Your task to perform on an android device: Go to wifi settings Image 0: 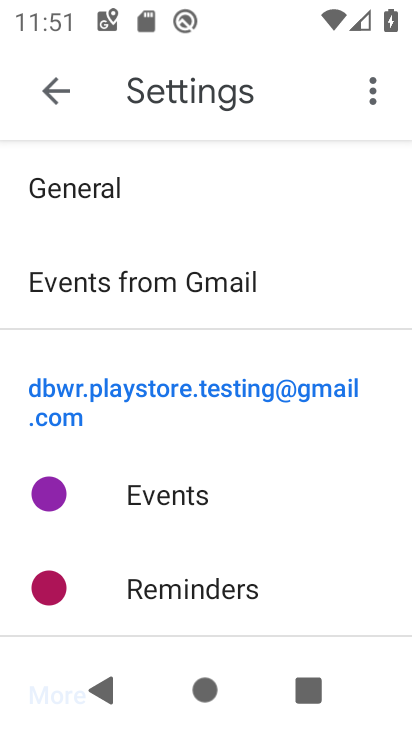
Step 0: press home button
Your task to perform on an android device: Go to wifi settings Image 1: 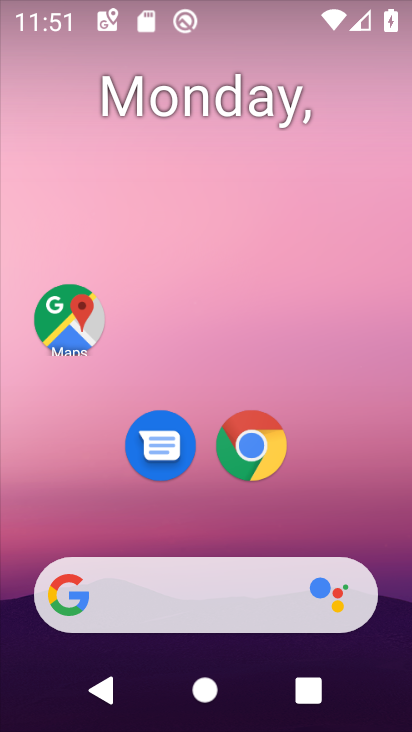
Step 1: drag from (314, 489) to (208, 79)
Your task to perform on an android device: Go to wifi settings Image 2: 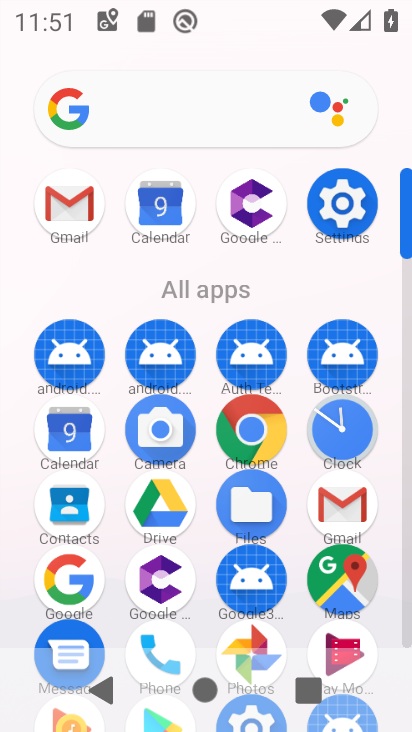
Step 2: click (339, 205)
Your task to perform on an android device: Go to wifi settings Image 3: 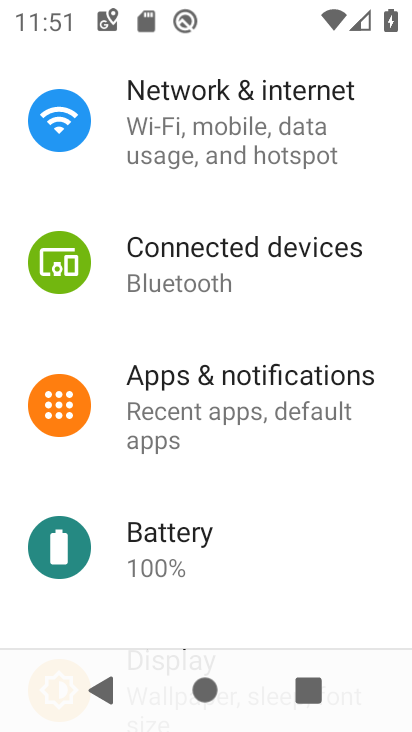
Step 3: drag from (216, 184) to (244, 634)
Your task to perform on an android device: Go to wifi settings Image 4: 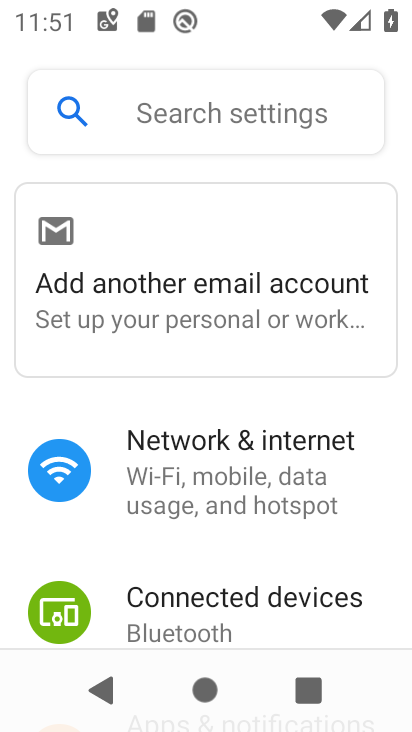
Step 4: click (218, 450)
Your task to perform on an android device: Go to wifi settings Image 5: 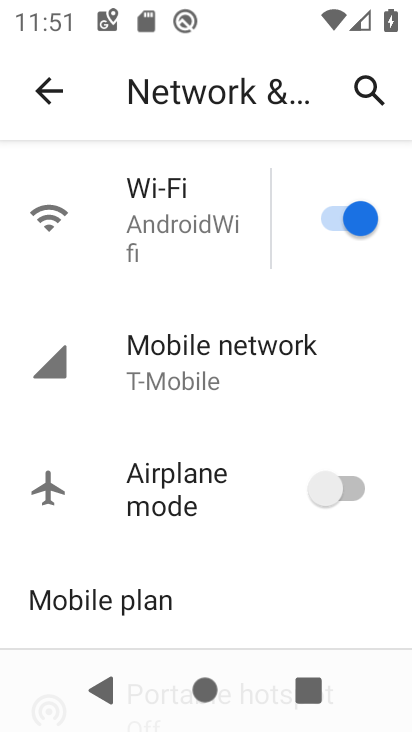
Step 5: click (165, 212)
Your task to perform on an android device: Go to wifi settings Image 6: 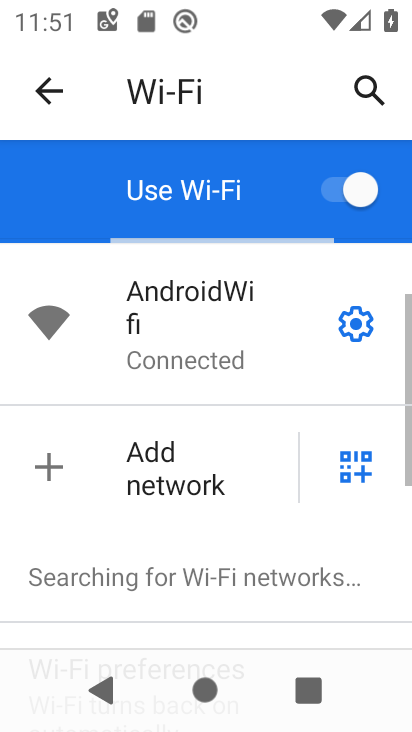
Step 6: task complete